Your task to perform on an android device: toggle translation in the chrome app Image 0: 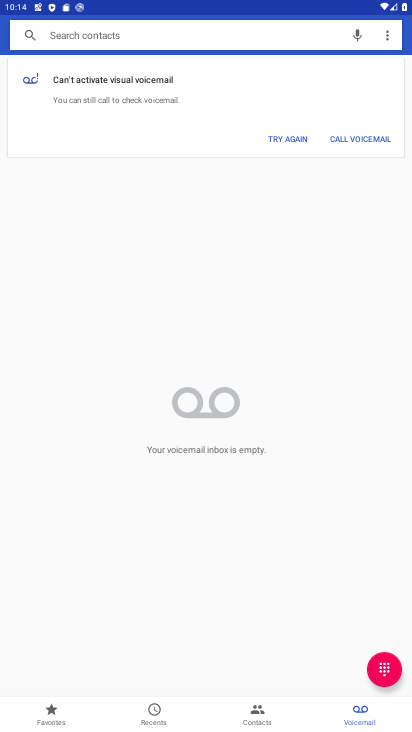
Step 0: press home button
Your task to perform on an android device: toggle translation in the chrome app Image 1: 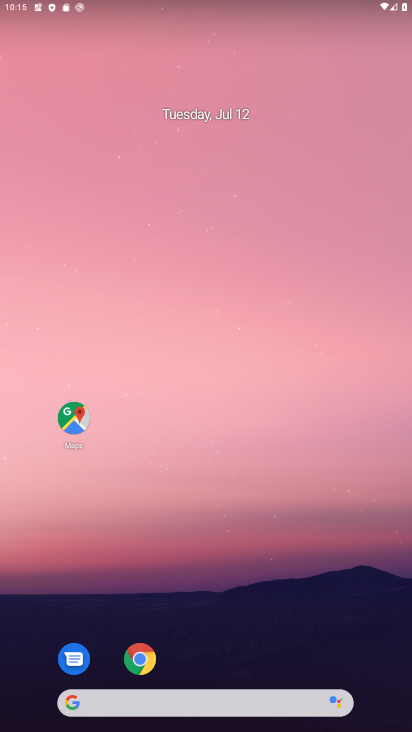
Step 1: click (142, 656)
Your task to perform on an android device: toggle translation in the chrome app Image 2: 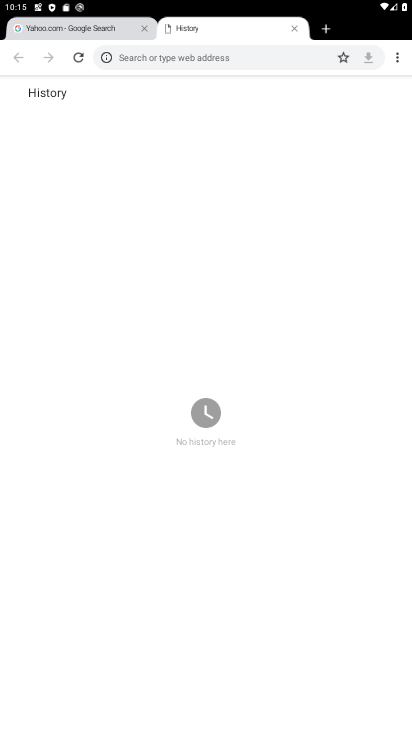
Step 2: press back button
Your task to perform on an android device: toggle translation in the chrome app Image 3: 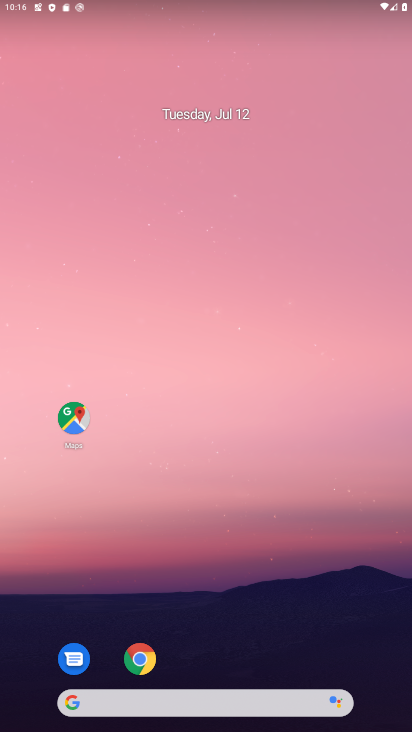
Step 3: click (133, 658)
Your task to perform on an android device: toggle translation in the chrome app Image 4: 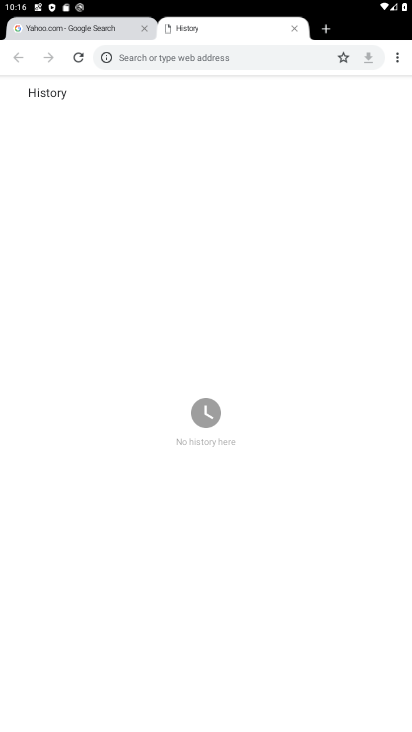
Step 4: click (17, 56)
Your task to perform on an android device: toggle translation in the chrome app Image 5: 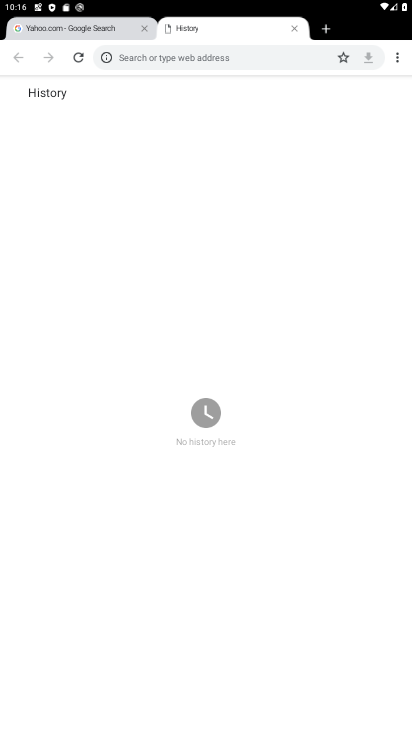
Step 5: click (396, 61)
Your task to perform on an android device: toggle translation in the chrome app Image 6: 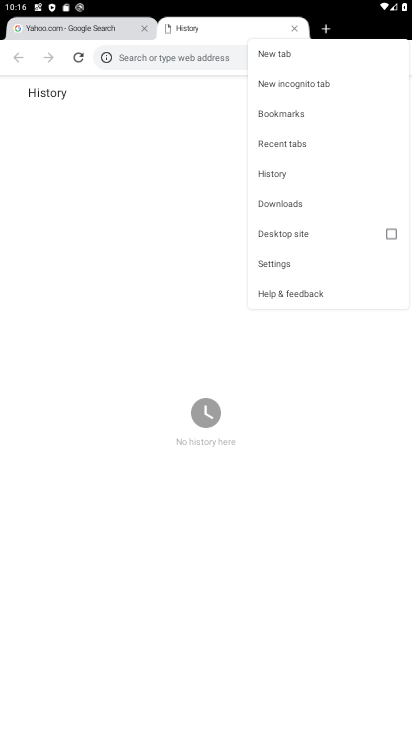
Step 6: click (278, 265)
Your task to perform on an android device: toggle translation in the chrome app Image 7: 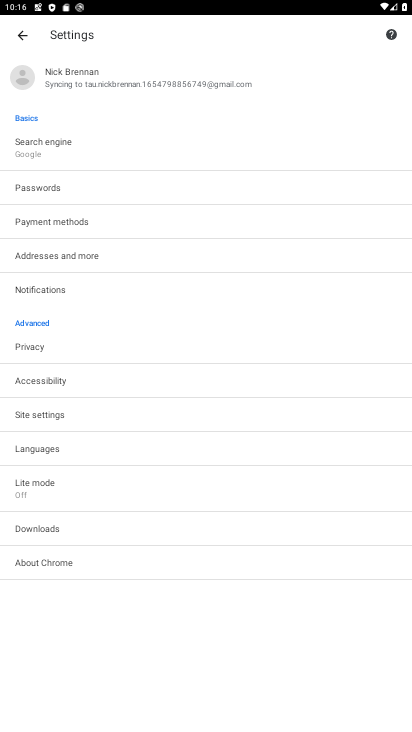
Step 7: click (70, 445)
Your task to perform on an android device: toggle translation in the chrome app Image 8: 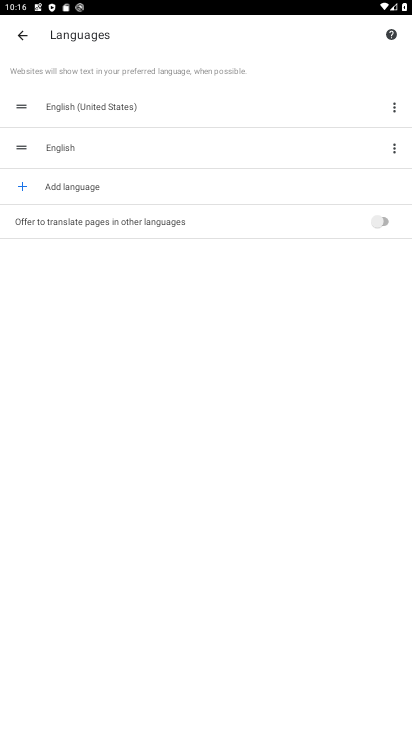
Step 8: click (388, 220)
Your task to perform on an android device: toggle translation in the chrome app Image 9: 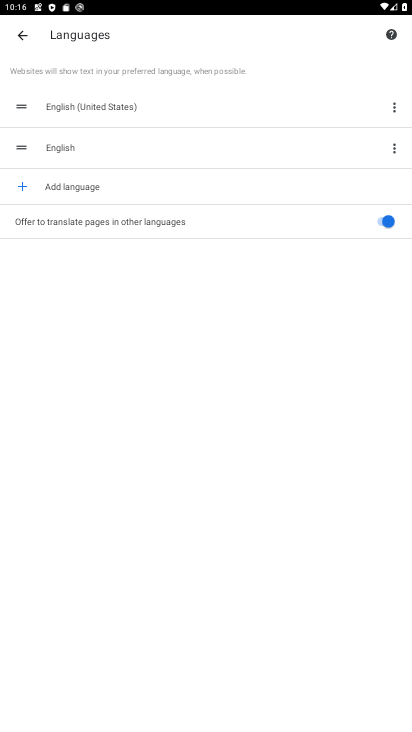
Step 9: task complete